Your task to perform on an android device: Open Youtube and go to the subscriptions tab Image 0: 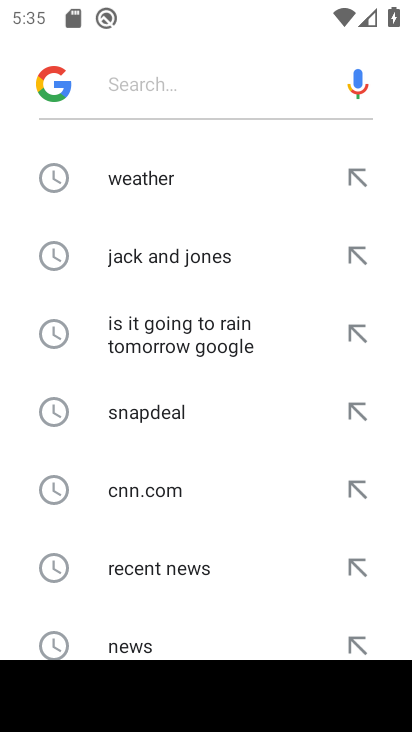
Step 0: drag from (231, 656) to (330, 132)
Your task to perform on an android device: Open Youtube and go to the subscriptions tab Image 1: 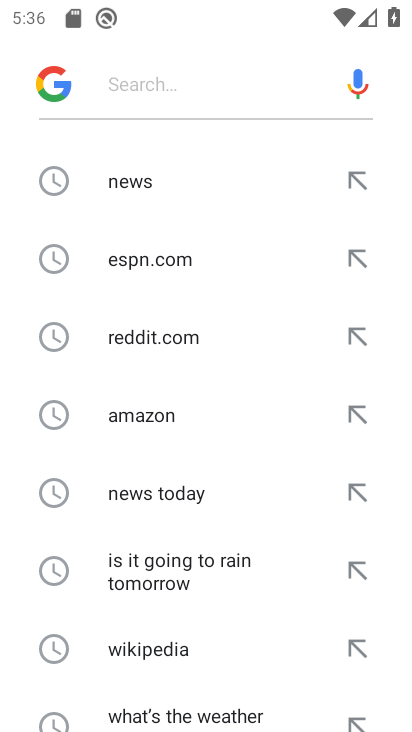
Step 1: press home button
Your task to perform on an android device: Open Youtube and go to the subscriptions tab Image 2: 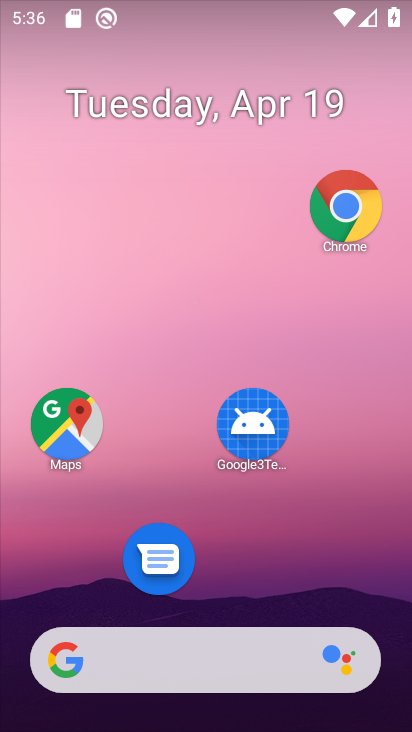
Step 2: drag from (198, 658) to (234, 219)
Your task to perform on an android device: Open Youtube and go to the subscriptions tab Image 3: 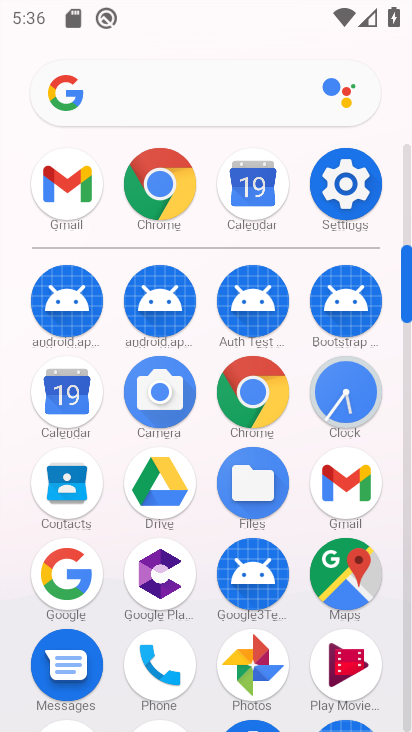
Step 3: drag from (247, 674) to (297, 353)
Your task to perform on an android device: Open Youtube and go to the subscriptions tab Image 4: 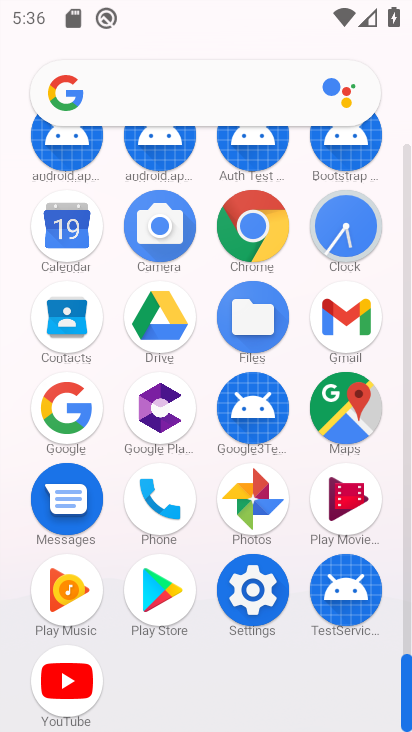
Step 4: drag from (260, 303) to (225, 539)
Your task to perform on an android device: Open Youtube and go to the subscriptions tab Image 5: 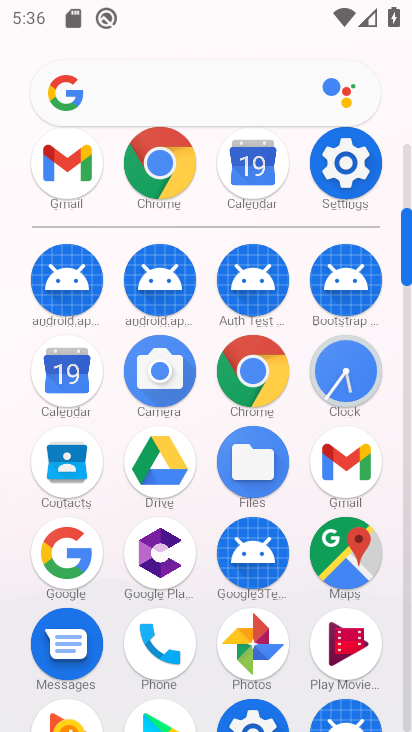
Step 5: drag from (185, 656) to (188, 277)
Your task to perform on an android device: Open Youtube and go to the subscriptions tab Image 6: 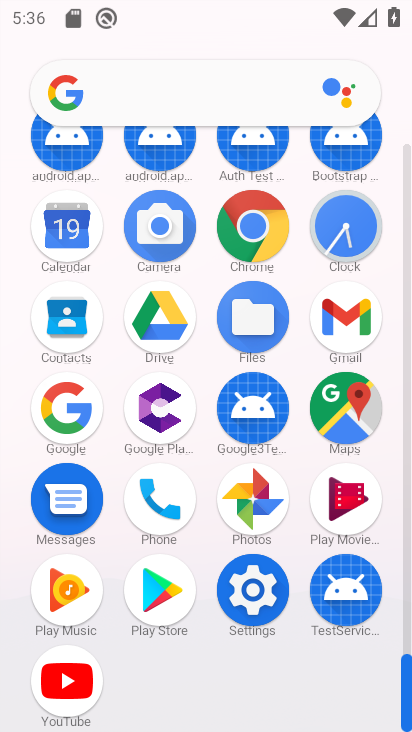
Step 6: click (68, 669)
Your task to perform on an android device: Open Youtube and go to the subscriptions tab Image 7: 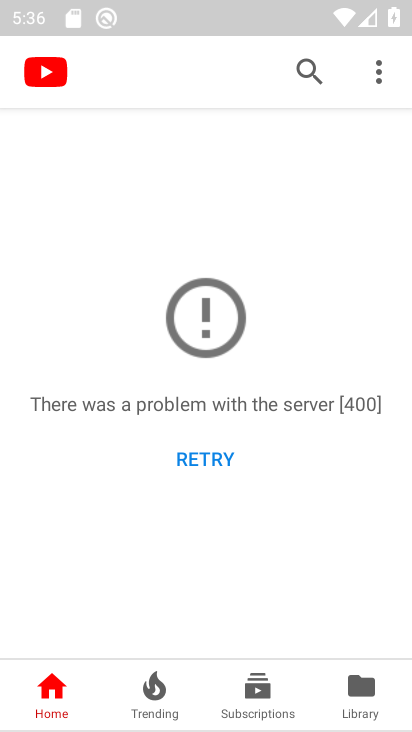
Step 7: click (257, 690)
Your task to perform on an android device: Open Youtube and go to the subscriptions tab Image 8: 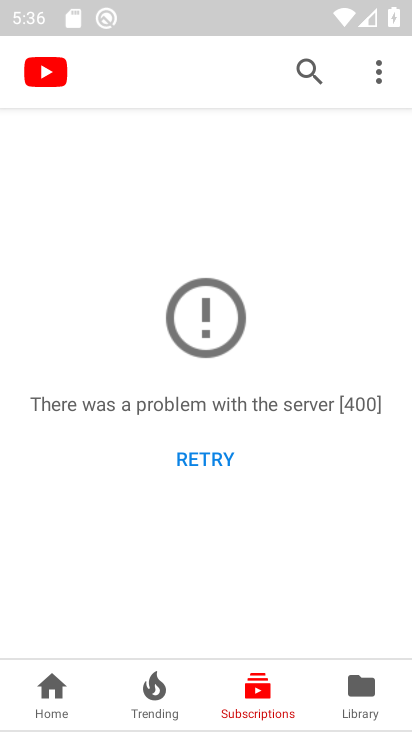
Step 8: task complete